Your task to perform on an android device: toggle improve location accuracy Image 0: 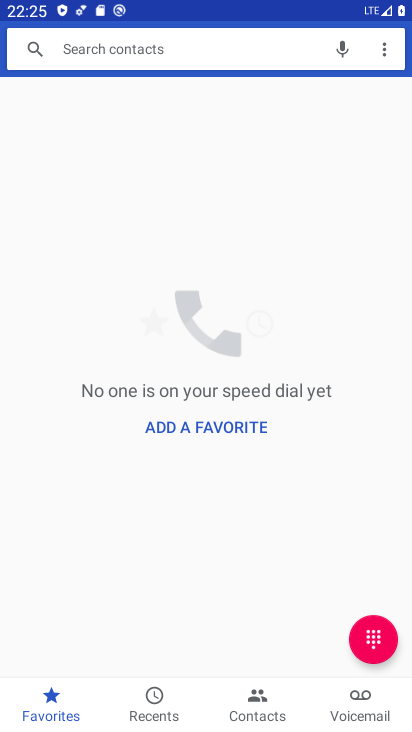
Step 0: press back button
Your task to perform on an android device: toggle improve location accuracy Image 1: 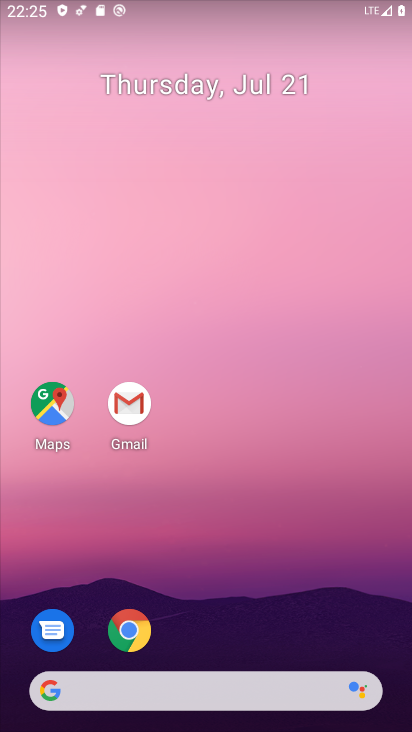
Step 1: drag from (233, 660) to (177, 298)
Your task to perform on an android device: toggle improve location accuracy Image 2: 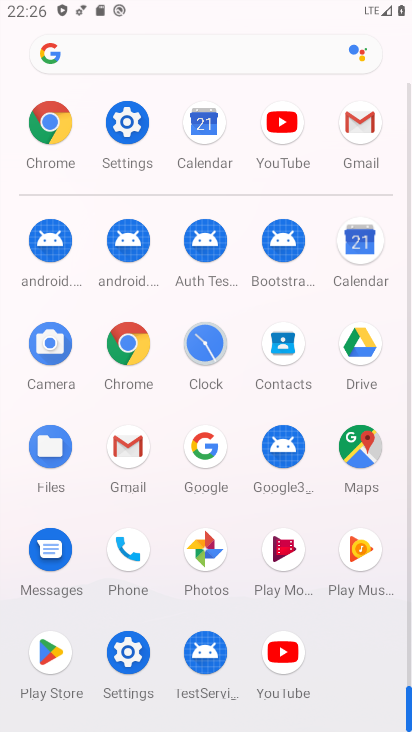
Step 2: click (117, 136)
Your task to perform on an android device: toggle improve location accuracy Image 3: 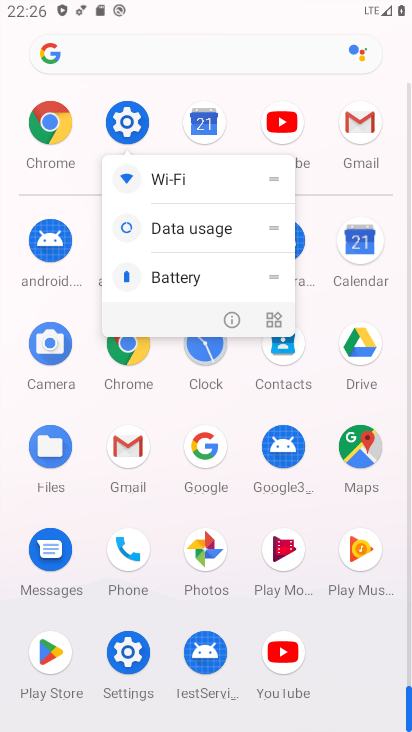
Step 3: click (118, 131)
Your task to perform on an android device: toggle improve location accuracy Image 4: 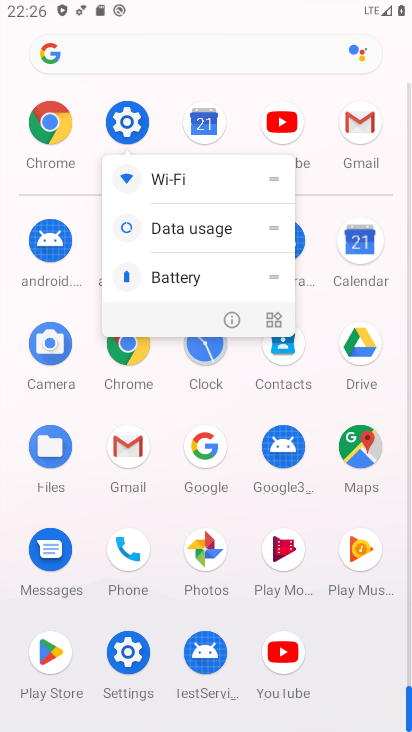
Step 4: click (140, 122)
Your task to perform on an android device: toggle improve location accuracy Image 5: 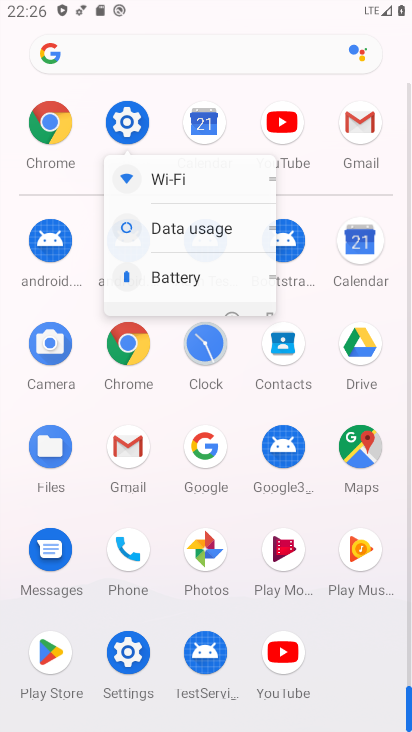
Step 5: click (140, 122)
Your task to perform on an android device: toggle improve location accuracy Image 6: 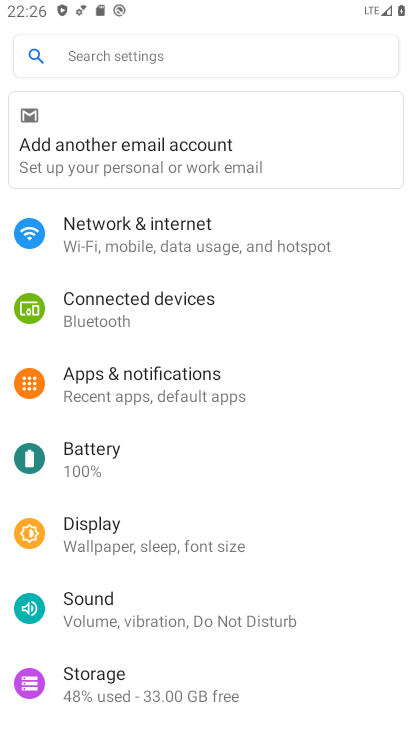
Step 6: drag from (160, 617) to (129, 220)
Your task to perform on an android device: toggle improve location accuracy Image 7: 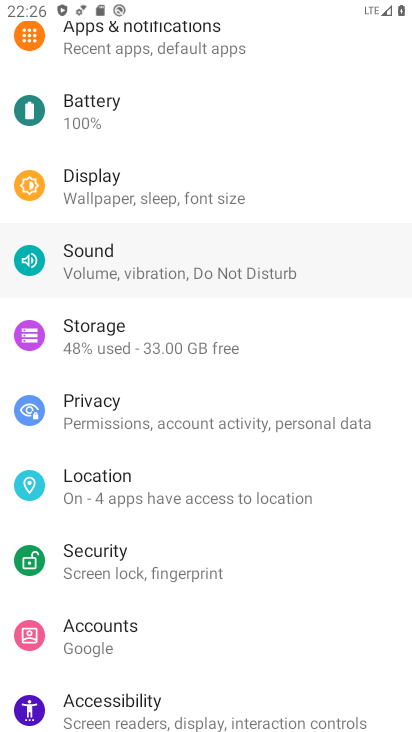
Step 7: drag from (129, 400) to (131, 124)
Your task to perform on an android device: toggle improve location accuracy Image 8: 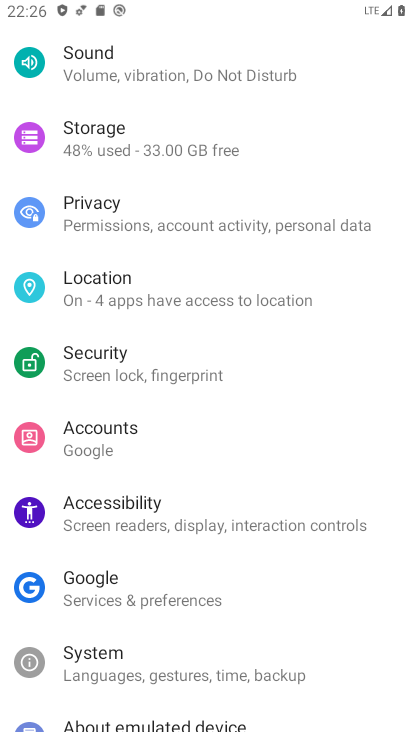
Step 8: click (104, 294)
Your task to perform on an android device: toggle improve location accuracy Image 9: 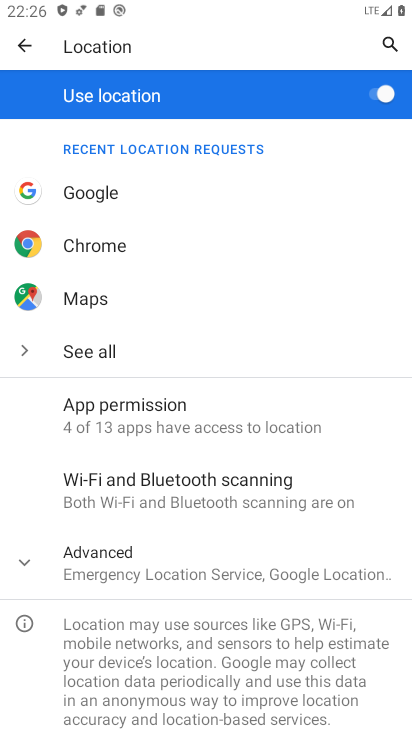
Step 9: click (105, 567)
Your task to perform on an android device: toggle improve location accuracy Image 10: 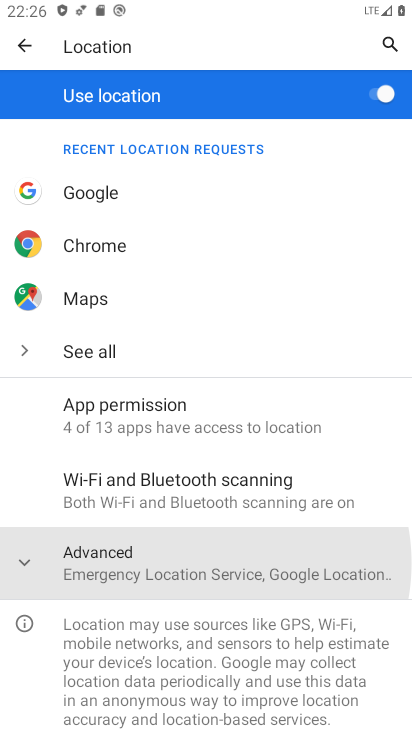
Step 10: click (105, 567)
Your task to perform on an android device: toggle improve location accuracy Image 11: 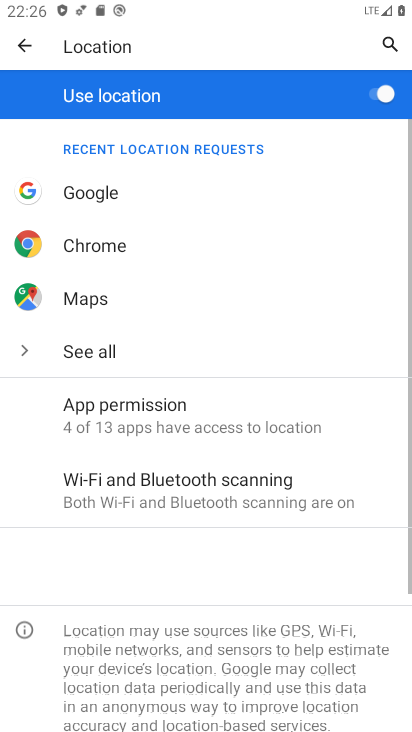
Step 11: click (105, 565)
Your task to perform on an android device: toggle improve location accuracy Image 12: 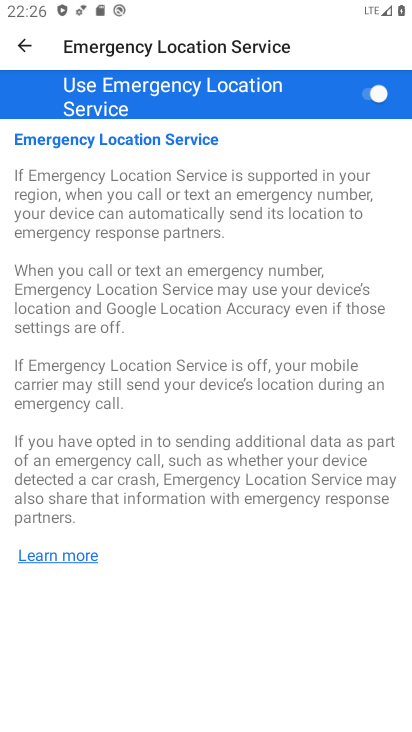
Step 12: click (20, 49)
Your task to perform on an android device: toggle improve location accuracy Image 13: 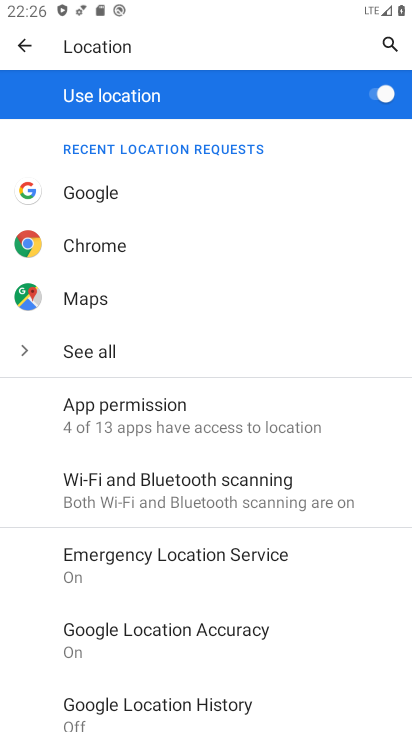
Step 13: click (141, 626)
Your task to perform on an android device: toggle improve location accuracy Image 14: 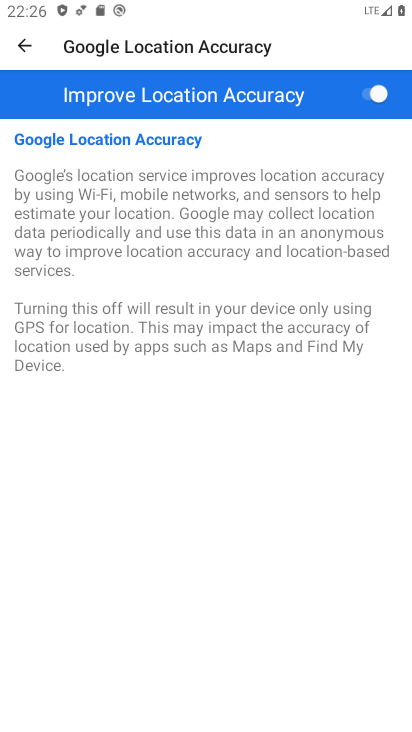
Step 14: click (380, 92)
Your task to perform on an android device: toggle improve location accuracy Image 15: 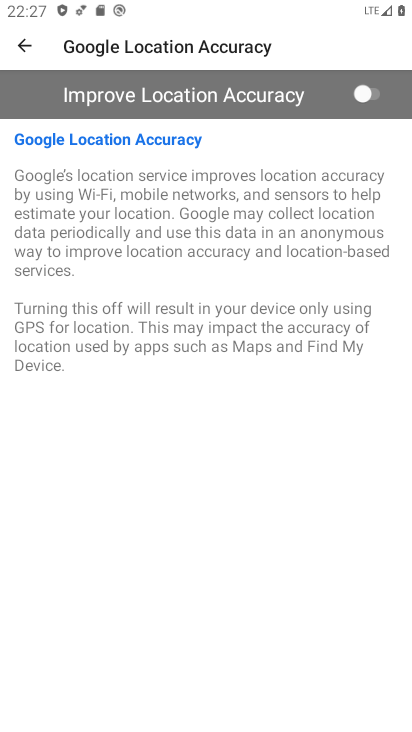
Step 15: click (19, 39)
Your task to perform on an android device: toggle improve location accuracy Image 16: 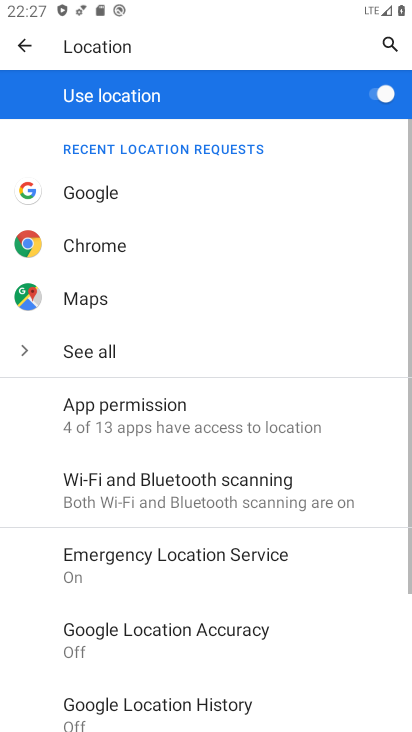
Step 16: click (17, 39)
Your task to perform on an android device: toggle improve location accuracy Image 17: 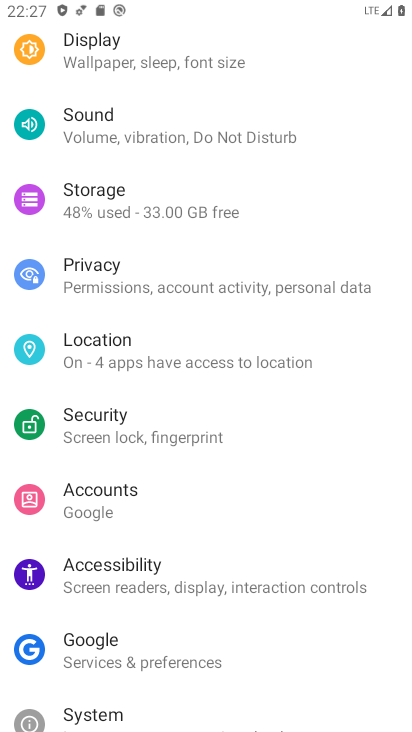
Step 17: press back button
Your task to perform on an android device: toggle improve location accuracy Image 18: 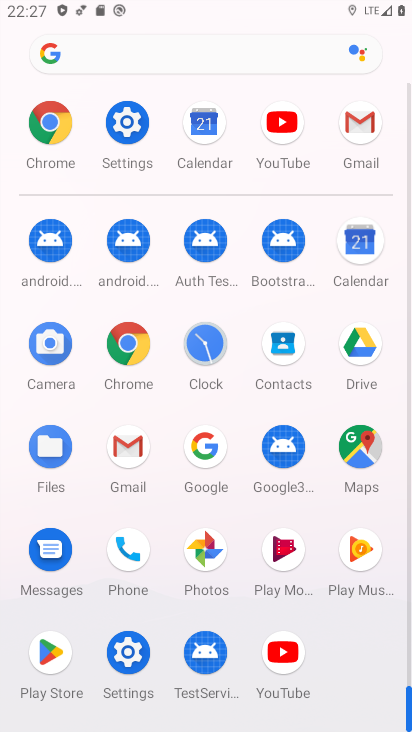
Step 18: click (133, 117)
Your task to perform on an android device: toggle improve location accuracy Image 19: 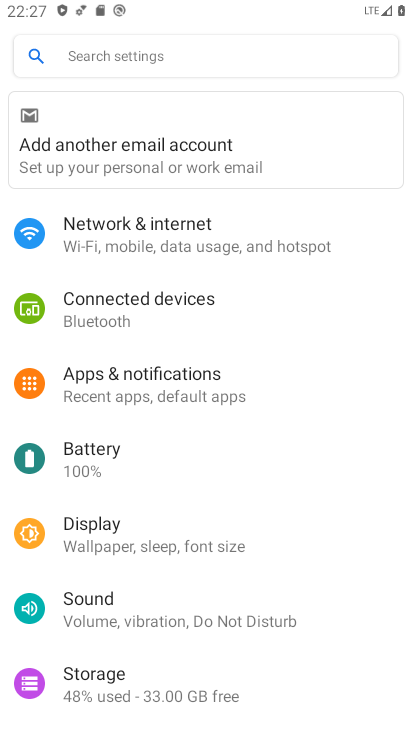
Step 19: drag from (112, 242) to (164, 327)
Your task to perform on an android device: toggle improve location accuracy Image 20: 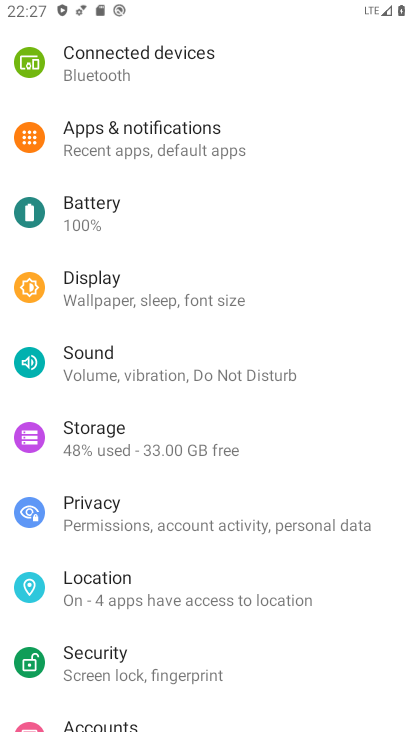
Step 20: drag from (171, 587) to (165, 301)
Your task to perform on an android device: toggle improve location accuracy Image 21: 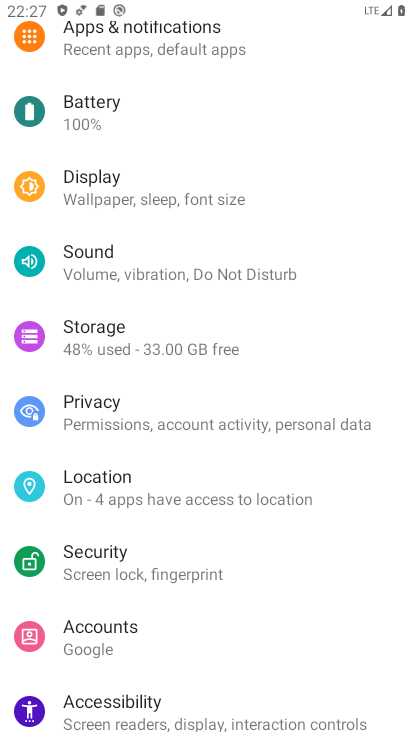
Step 21: drag from (154, 421) to (152, 126)
Your task to perform on an android device: toggle improve location accuracy Image 22: 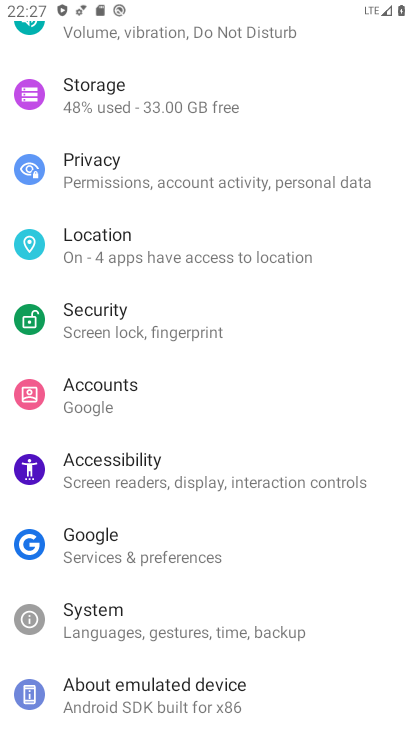
Step 22: drag from (145, 443) to (156, 132)
Your task to perform on an android device: toggle improve location accuracy Image 23: 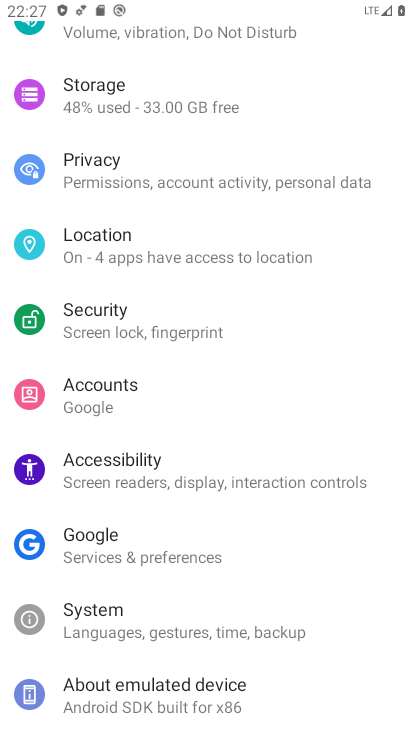
Step 23: drag from (126, 465) to (134, 208)
Your task to perform on an android device: toggle improve location accuracy Image 24: 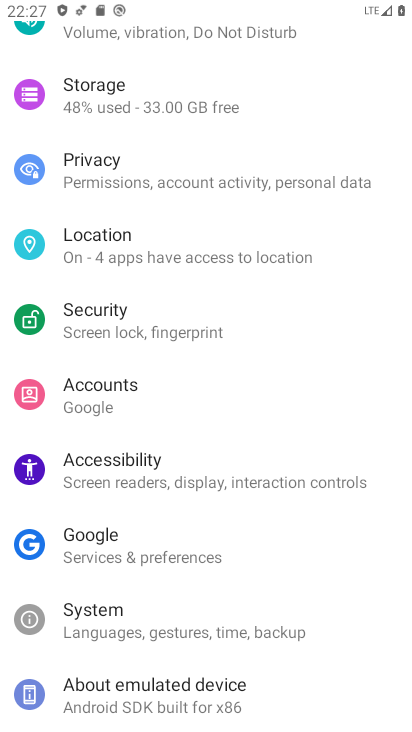
Step 24: drag from (138, 526) to (165, 336)
Your task to perform on an android device: toggle improve location accuracy Image 25: 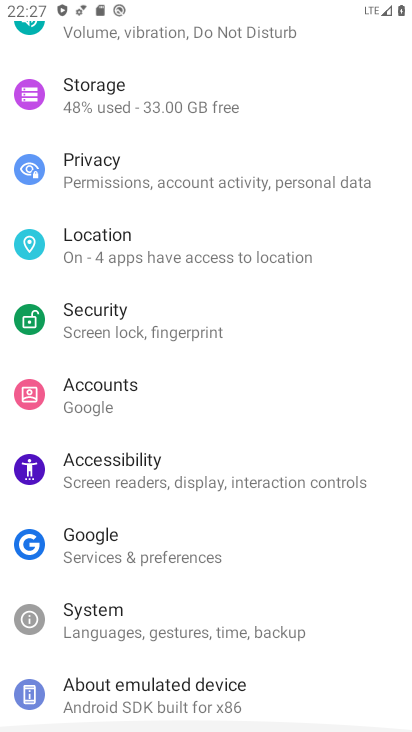
Step 25: drag from (158, 585) to (147, 351)
Your task to perform on an android device: toggle improve location accuracy Image 26: 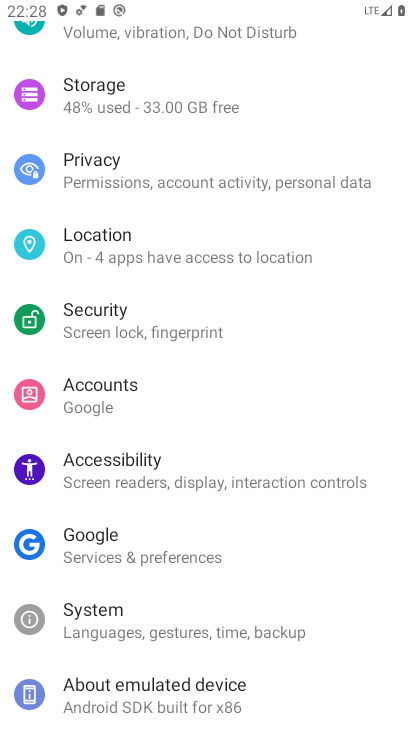
Step 26: click (108, 244)
Your task to perform on an android device: toggle improve location accuracy Image 27: 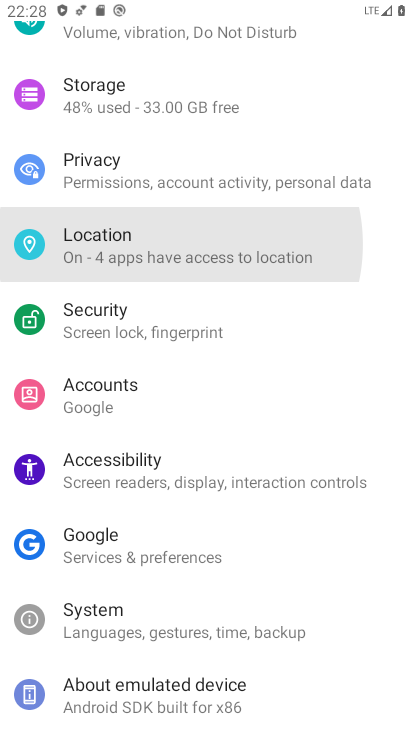
Step 27: click (112, 241)
Your task to perform on an android device: toggle improve location accuracy Image 28: 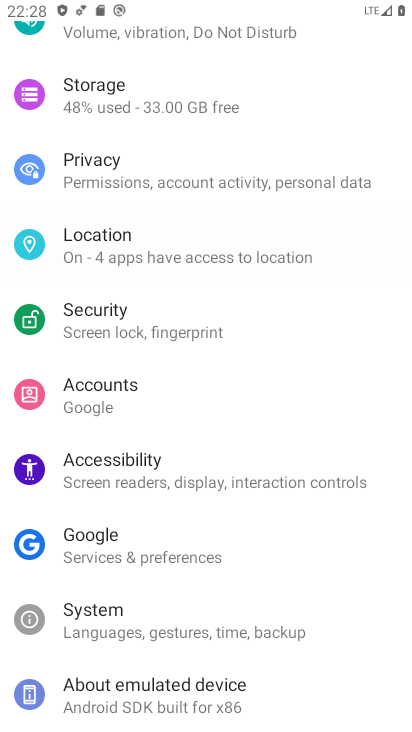
Step 28: click (112, 241)
Your task to perform on an android device: toggle improve location accuracy Image 29: 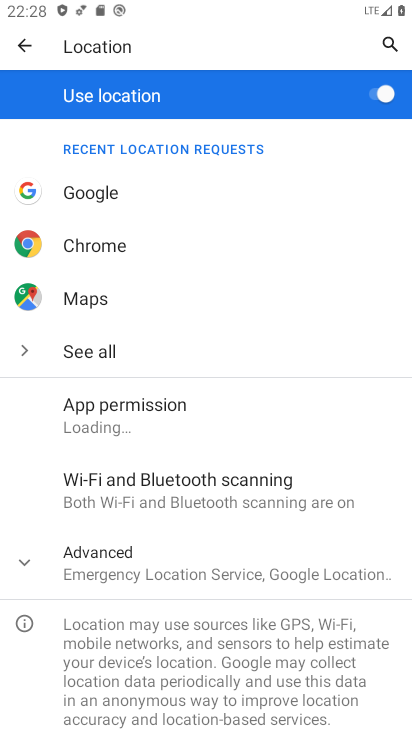
Step 29: click (129, 560)
Your task to perform on an android device: toggle improve location accuracy Image 30: 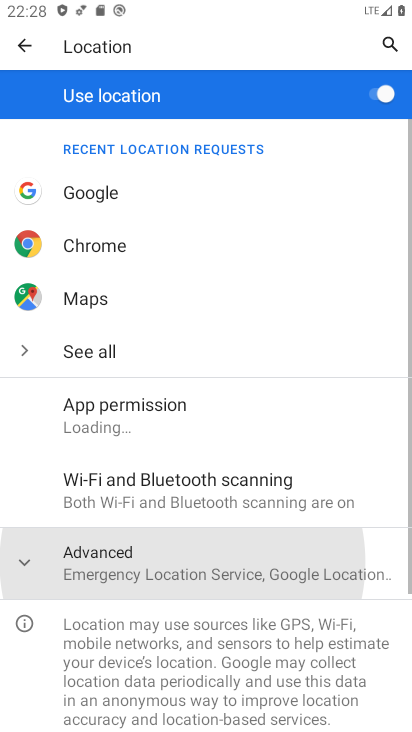
Step 30: click (135, 560)
Your task to perform on an android device: toggle improve location accuracy Image 31: 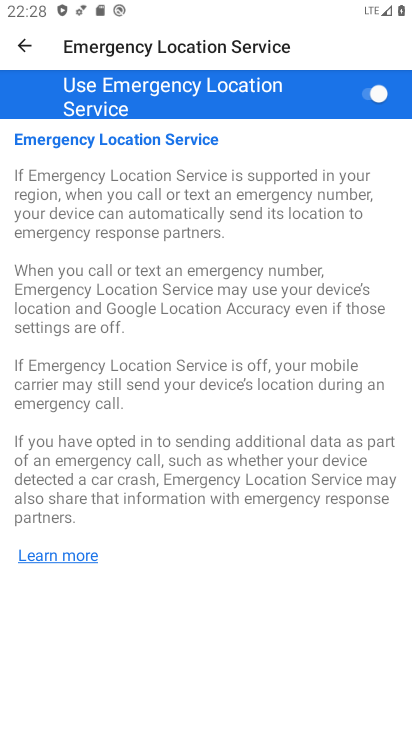
Step 31: click (26, 42)
Your task to perform on an android device: toggle improve location accuracy Image 32: 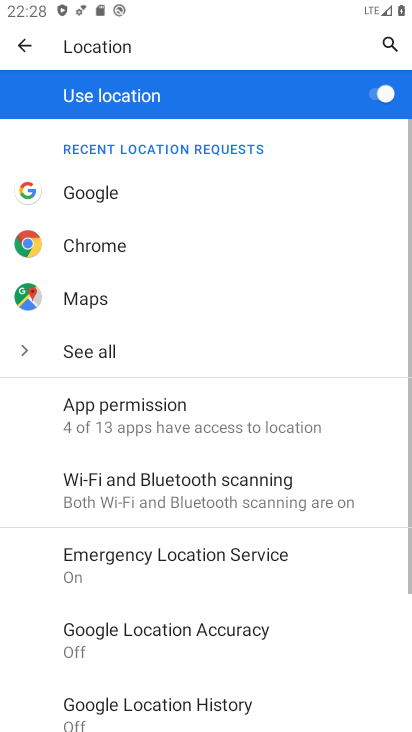
Step 32: click (171, 631)
Your task to perform on an android device: toggle improve location accuracy Image 33: 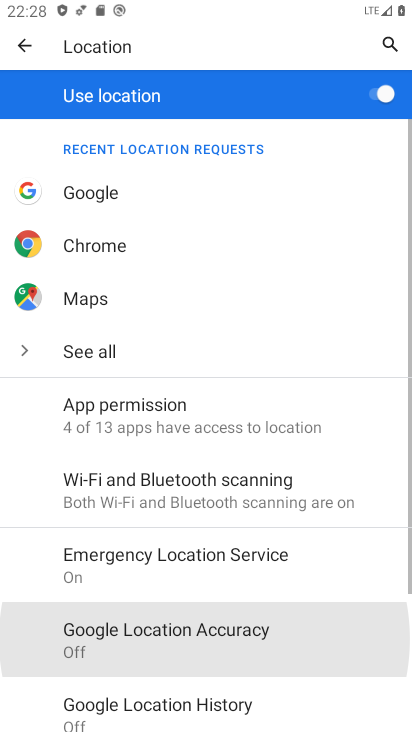
Step 33: click (172, 629)
Your task to perform on an android device: toggle improve location accuracy Image 34: 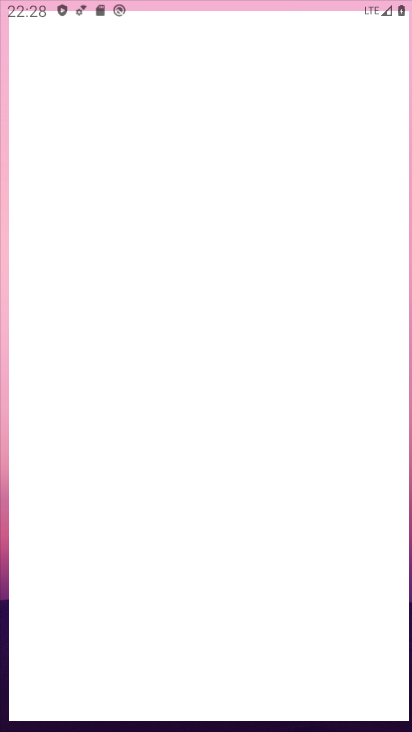
Step 34: click (176, 627)
Your task to perform on an android device: toggle improve location accuracy Image 35: 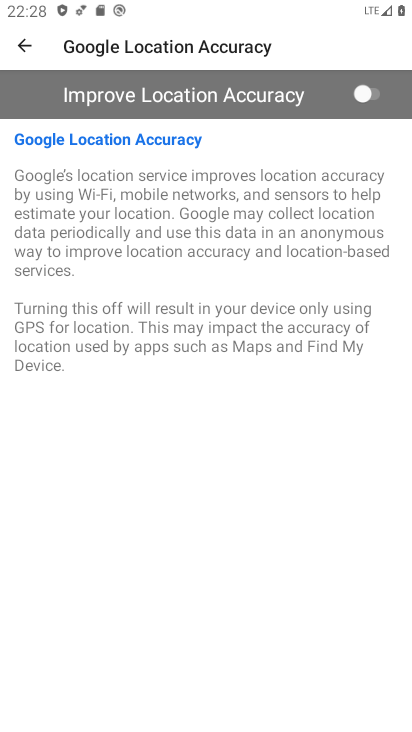
Step 35: click (362, 95)
Your task to perform on an android device: toggle improve location accuracy Image 36: 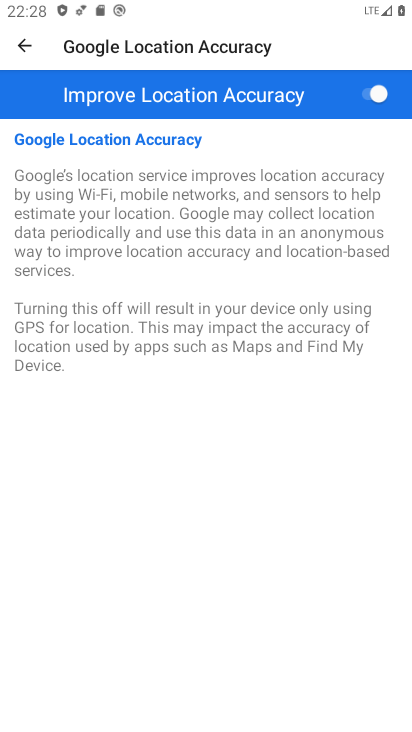
Step 36: task complete